Your task to perform on an android device: manage bookmarks in the chrome app Image 0: 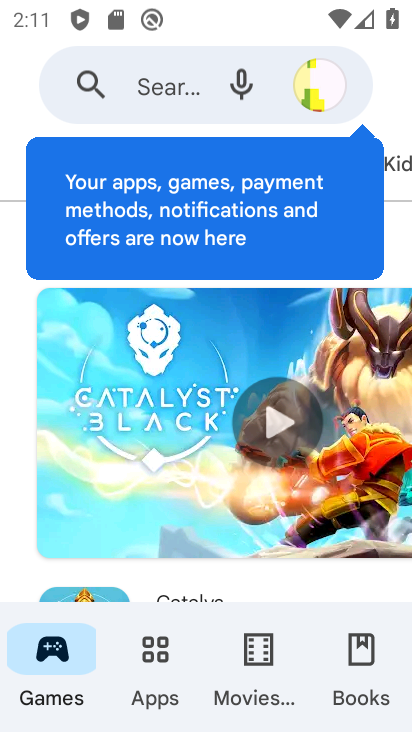
Step 0: press home button
Your task to perform on an android device: manage bookmarks in the chrome app Image 1: 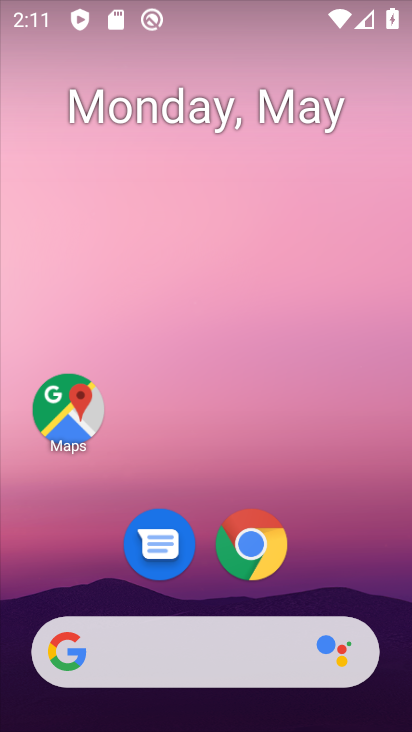
Step 1: click (231, 541)
Your task to perform on an android device: manage bookmarks in the chrome app Image 2: 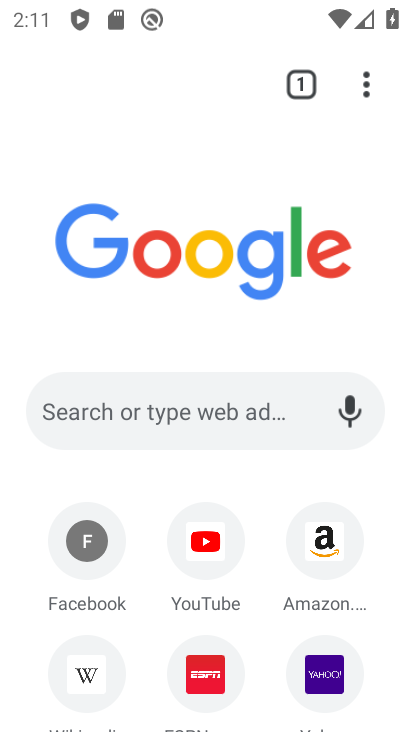
Step 2: task complete